Your task to perform on an android device: open sync settings in chrome Image 0: 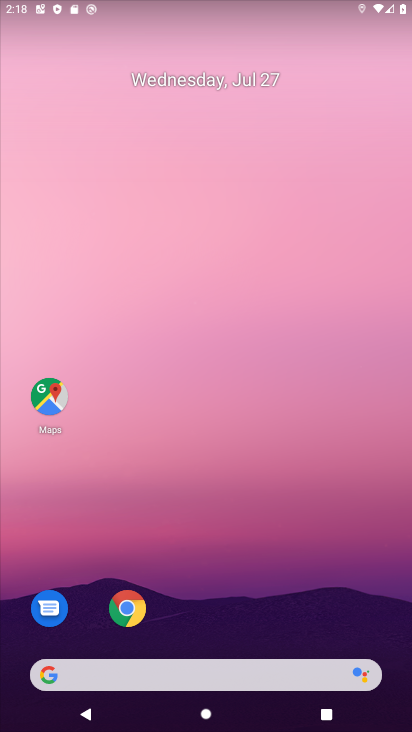
Step 0: click (122, 617)
Your task to perform on an android device: open sync settings in chrome Image 1: 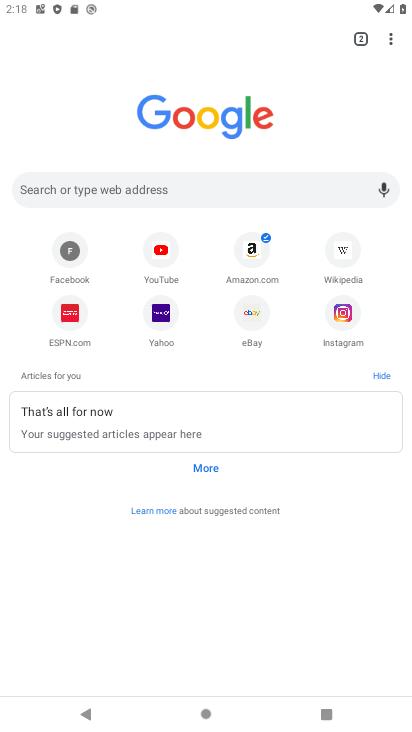
Step 1: click (385, 43)
Your task to perform on an android device: open sync settings in chrome Image 2: 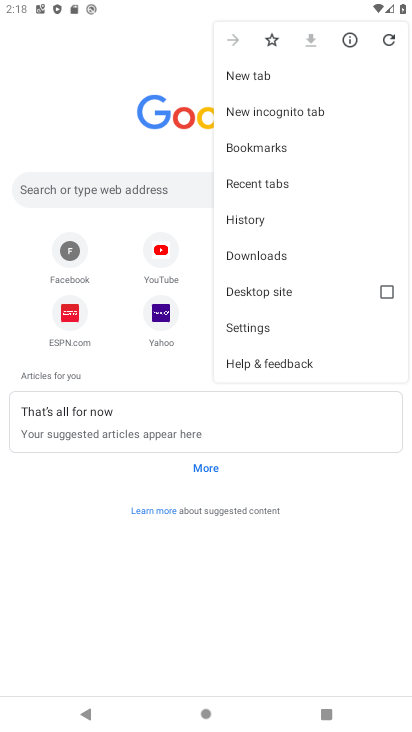
Step 2: click (391, 42)
Your task to perform on an android device: open sync settings in chrome Image 3: 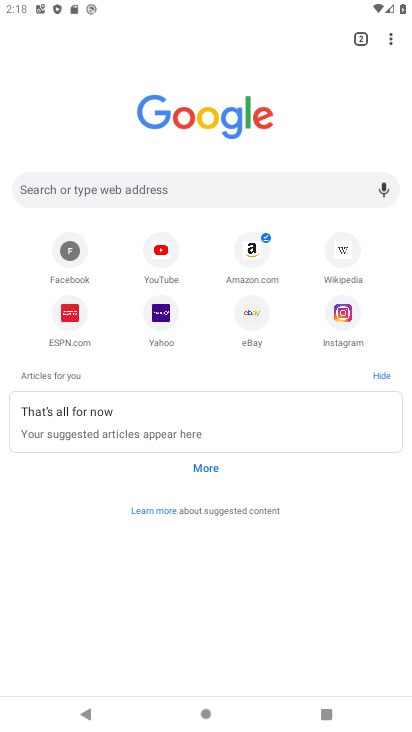
Step 3: click (391, 42)
Your task to perform on an android device: open sync settings in chrome Image 4: 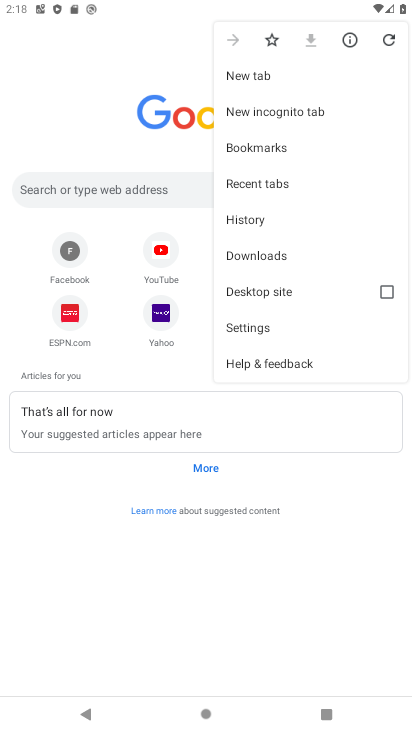
Step 4: click (259, 329)
Your task to perform on an android device: open sync settings in chrome Image 5: 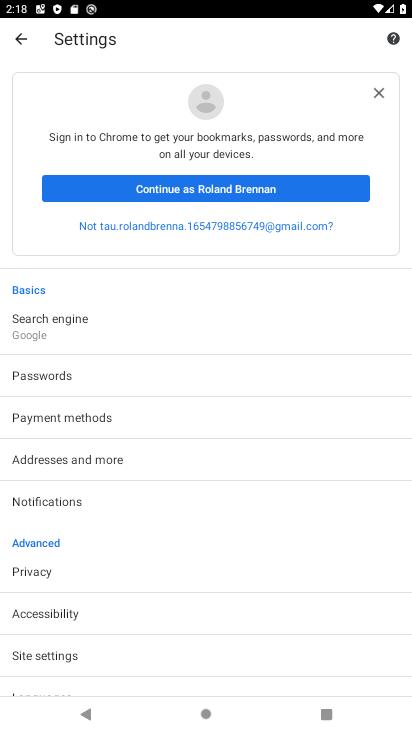
Step 5: drag from (353, 563) to (328, 233)
Your task to perform on an android device: open sync settings in chrome Image 6: 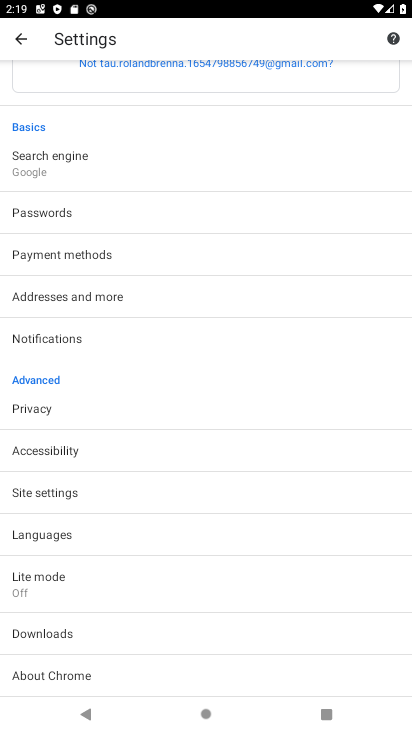
Step 6: drag from (258, 104) to (268, 234)
Your task to perform on an android device: open sync settings in chrome Image 7: 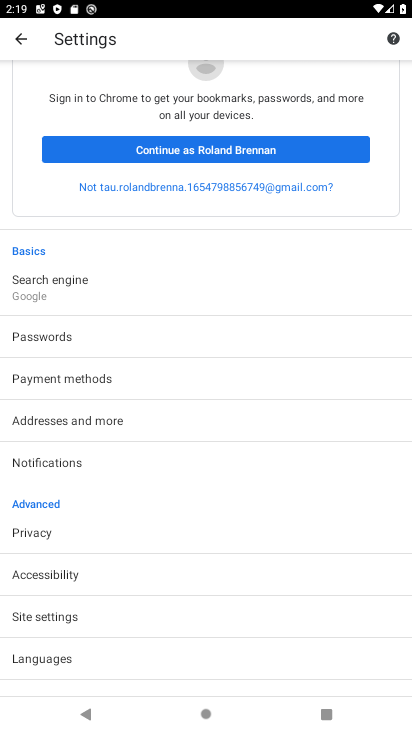
Step 7: click (221, 154)
Your task to perform on an android device: open sync settings in chrome Image 8: 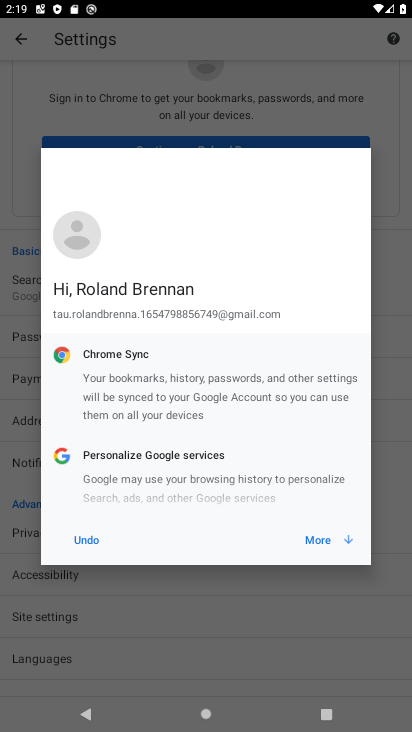
Step 8: click (136, 354)
Your task to perform on an android device: open sync settings in chrome Image 9: 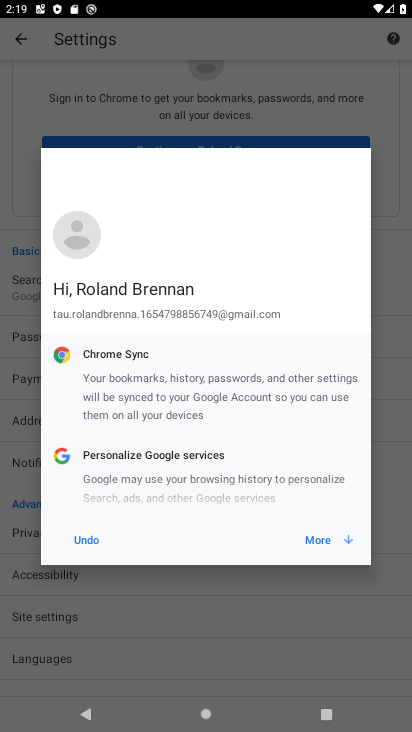
Step 9: click (323, 539)
Your task to perform on an android device: open sync settings in chrome Image 10: 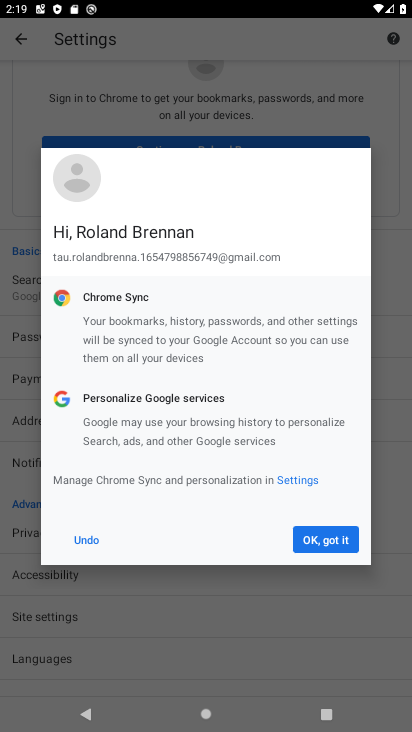
Step 10: click (329, 534)
Your task to perform on an android device: open sync settings in chrome Image 11: 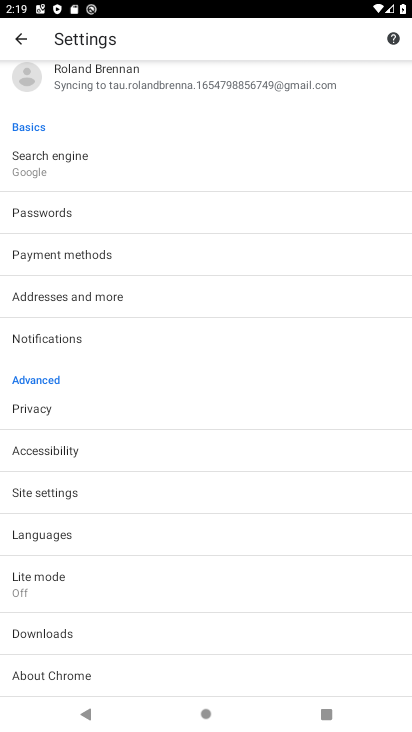
Step 11: task complete